Your task to perform on an android device: Open the phone app and click the voicemail tab. Image 0: 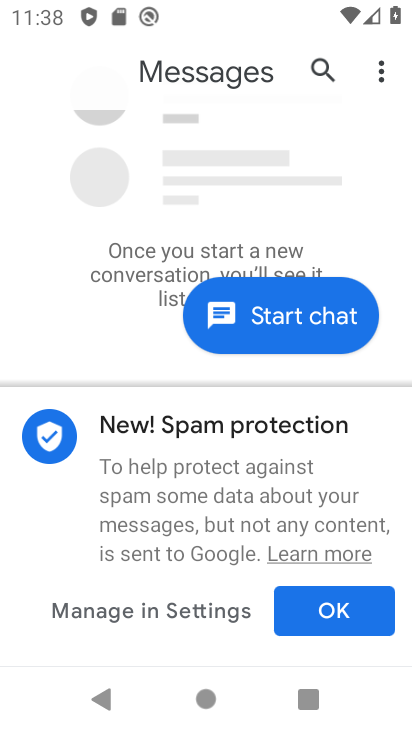
Step 0: press home button
Your task to perform on an android device: Open the phone app and click the voicemail tab. Image 1: 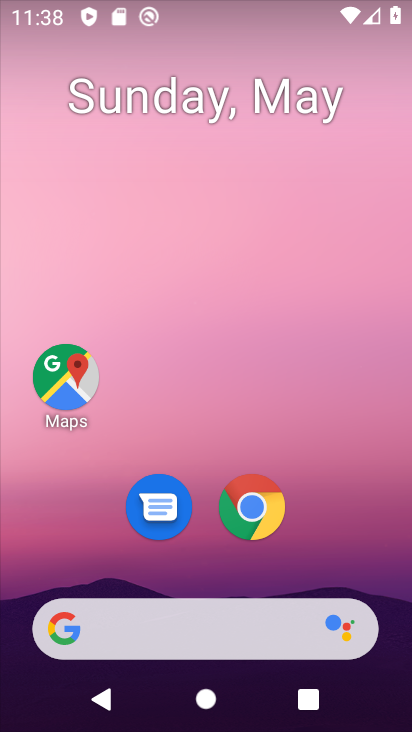
Step 1: drag from (229, 722) to (216, 129)
Your task to perform on an android device: Open the phone app and click the voicemail tab. Image 2: 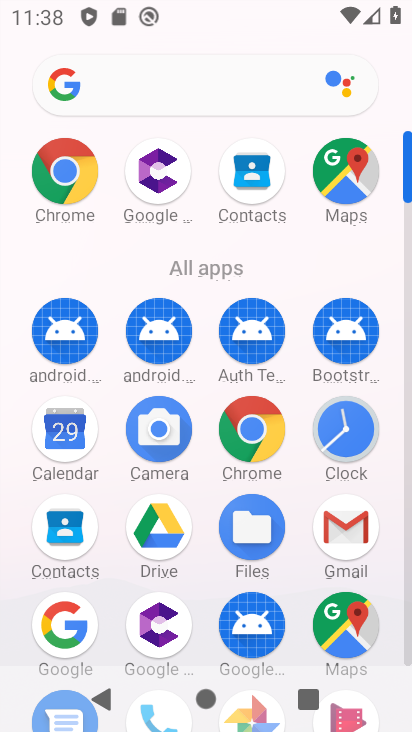
Step 2: drag from (215, 652) to (212, 294)
Your task to perform on an android device: Open the phone app and click the voicemail tab. Image 3: 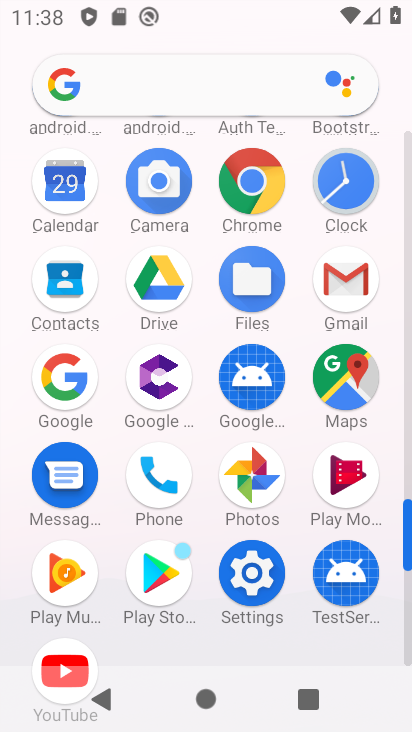
Step 3: click (152, 479)
Your task to perform on an android device: Open the phone app and click the voicemail tab. Image 4: 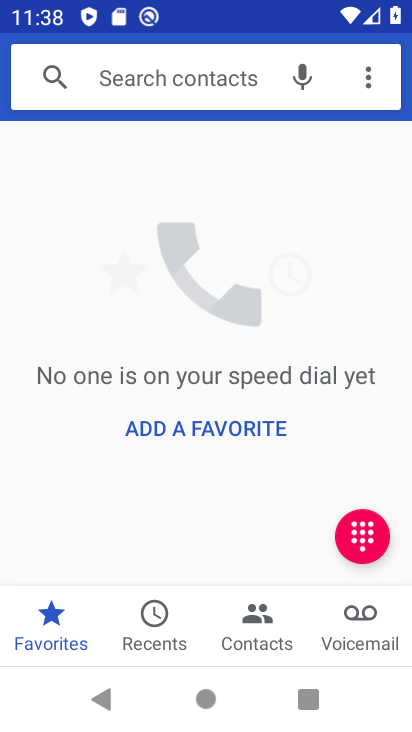
Step 4: click (355, 628)
Your task to perform on an android device: Open the phone app and click the voicemail tab. Image 5: 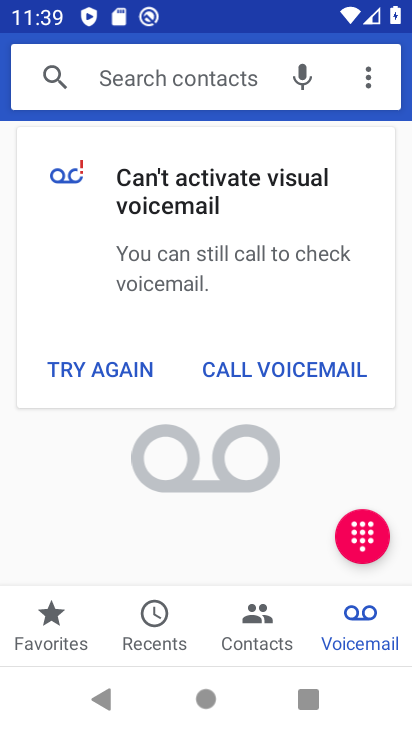
Step 5: task complete